Your task to perform on an android device: Open the stopwatch Image 0: 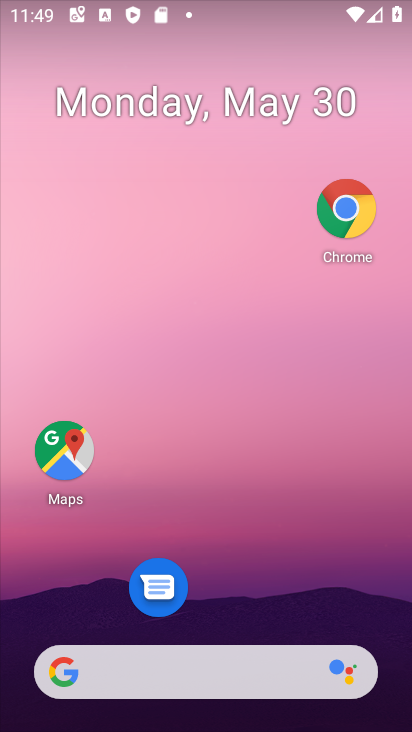
Step 0: drag from (197, 632) to (244, 194)
Your task to perform on an android device: Open the stopwatch Image 1: 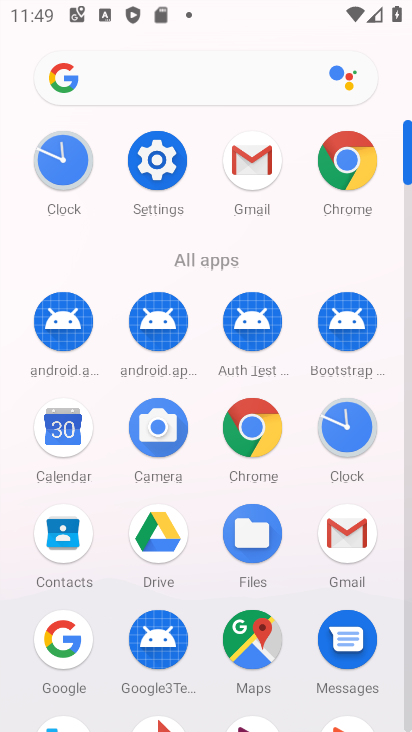
Step 1: click (69, 161)
Your task to perform on an android device: Open the stopwatch Image 2: 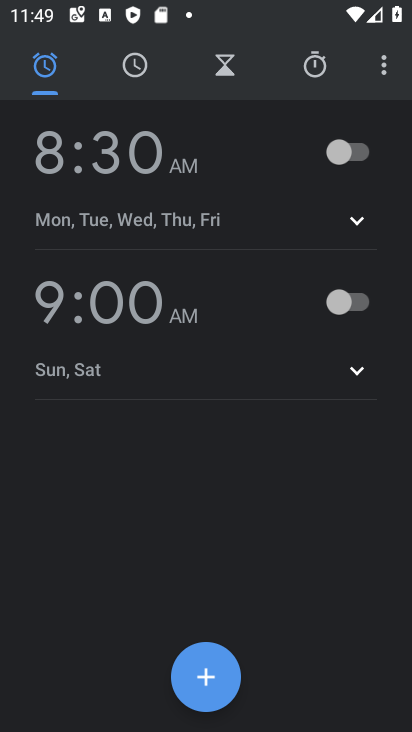
Step 2: click (317, 73)
Your task to perform on an android device: Open the stopwatch Image 3: 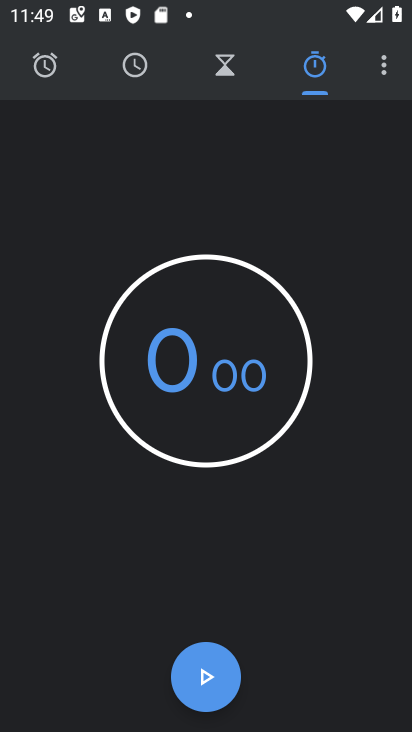
Step 3: task complete